Your task to perform on an android device: visit the assistant section in the google photos Image 0: 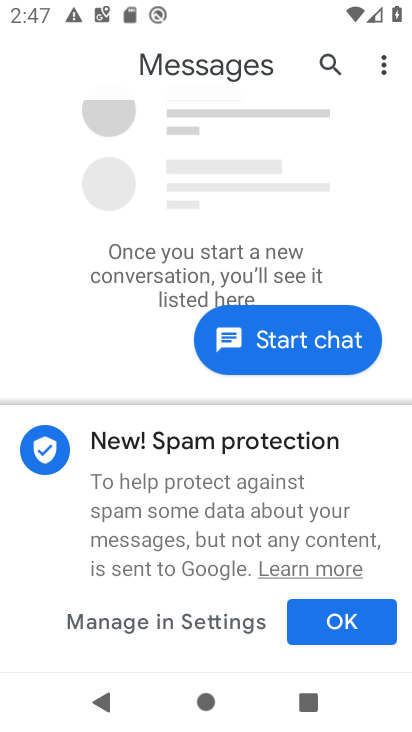
Step 0: press home button
Your task to perform on an android device: visit the assistant section in the google photos Image 1: 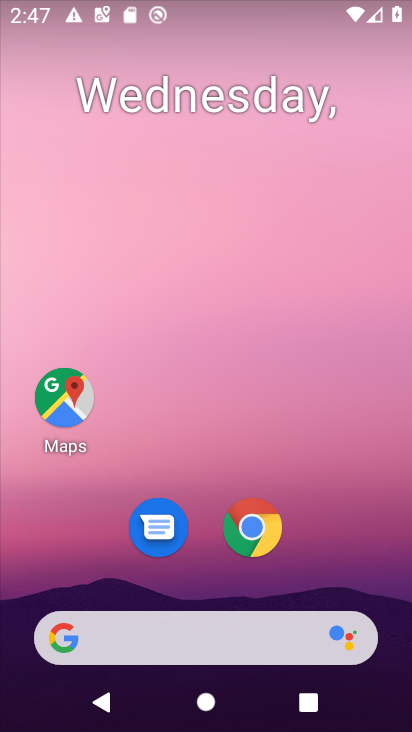
Step 1: drag from (321, 570) to (329, 63)
Your task to perform on an android device: visit the assistant section in the google photos Image 2: 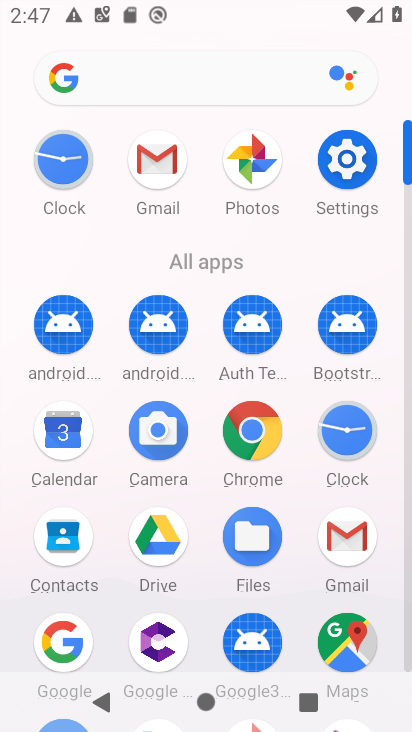
Step 2: drag from (291, 575) to (300, 317)
Your task to perform on an android device: visit the assistant section in the google photos Image 3: 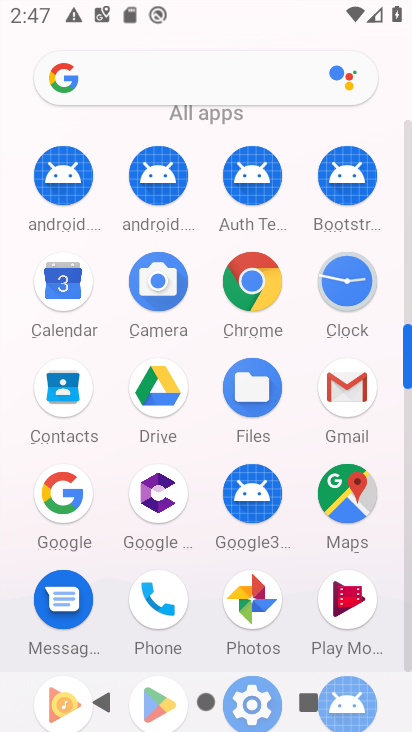
Step 3: click (244, 609)
Your task to perform on an android device: visit the assistant section in the google photos Image 4: 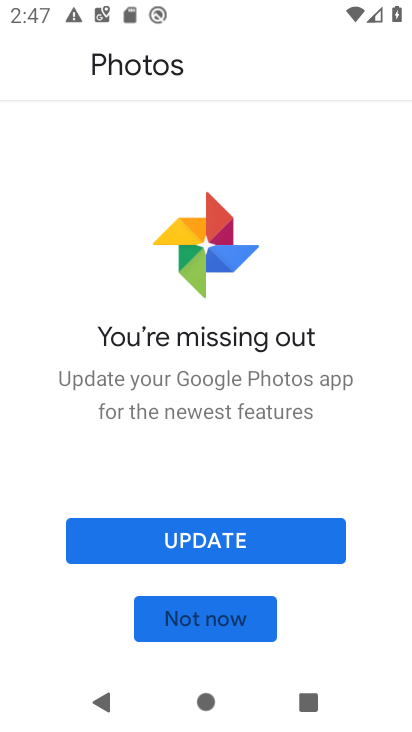
Step 4: click (243, 626)
Your task to perform on an android device: visit the assistant section in the google photos Image 5: 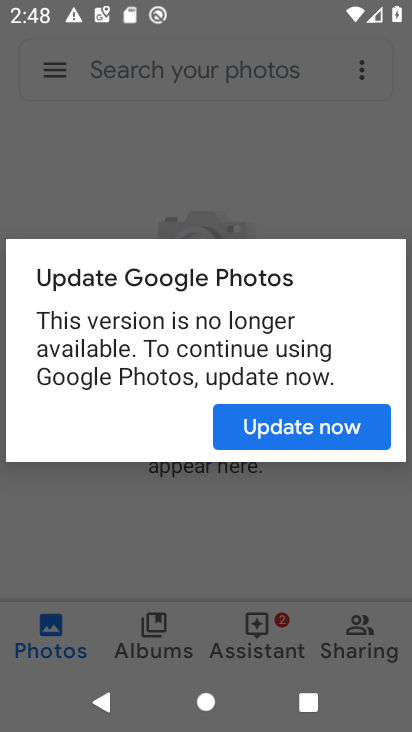
Step 5: click (268, 424)
Your task to perform on an android device: visit the assistant section in the google photos Image 6: 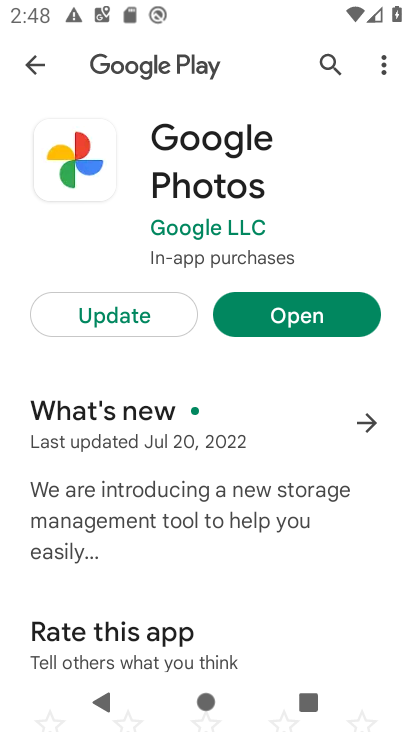
Step 6: click (137, 318)
Your task to perform on an android device: visit the assistant section in the google photos Image 7: 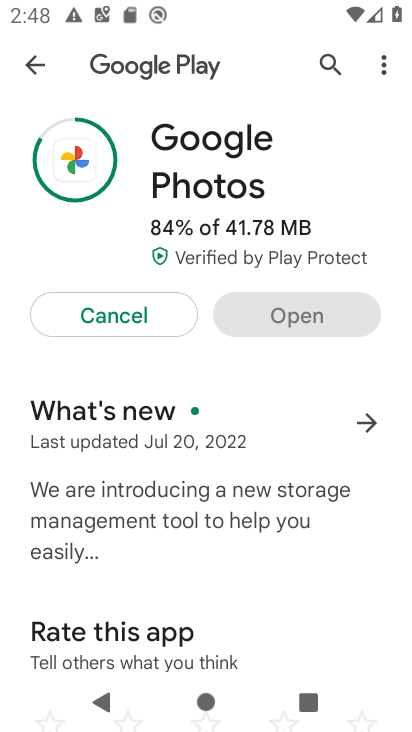
Step 7: task complete